Your task to perform on an android device: Check the weather Image 0: 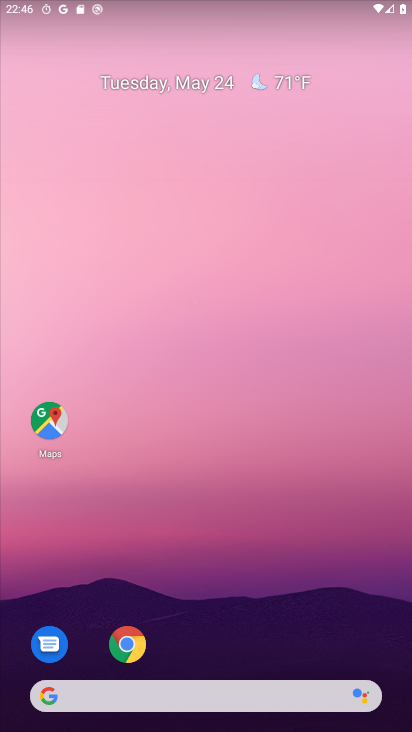
Step 0: click (174, 697)
Your task to perform on an android device: Check the weather Image 1: 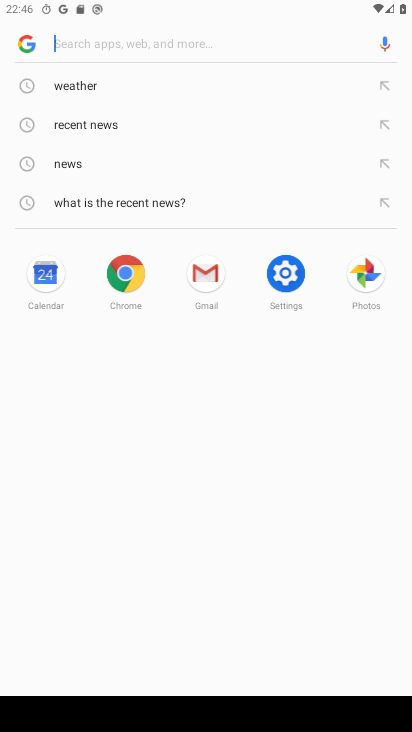
Step 1: click (72, 77)
Your task to perform on an android device: Check the weather Image 2: 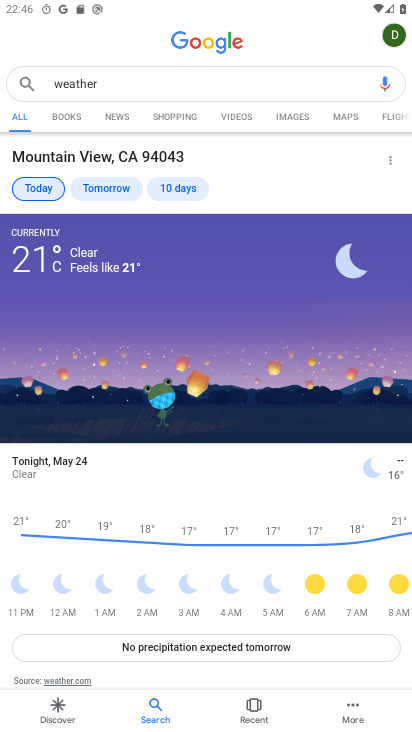
Step 2: task complete